Your task to perform on an android device: Open sound settings Image 0: 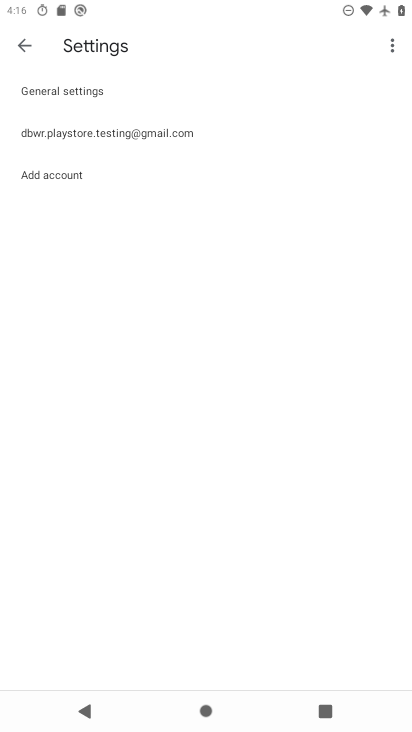
Step 0: drag from (200, 650) to (199, 444)
Your task to perform on an android device: Open sound settings Image 1: 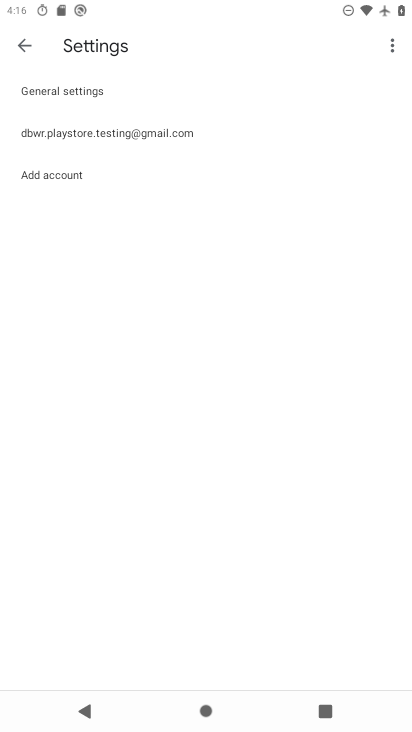
Step 1: press home button
Your task to perform on an android device: Open sound settings Image 2: 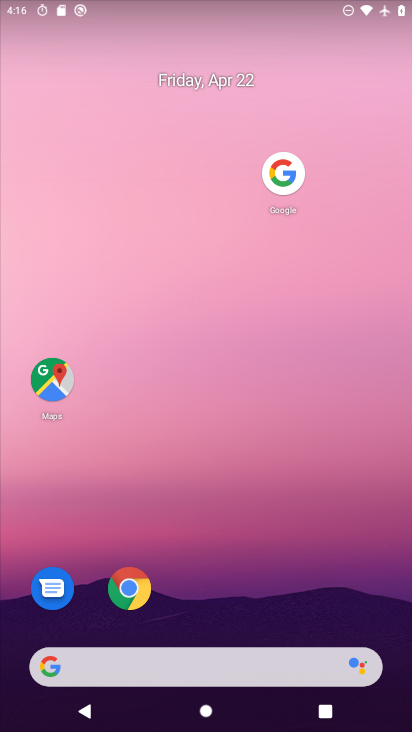
Step 2: drag from (232, 631) to (228, 45)
Your task to perform on an android device: Open sound settings Image 3: 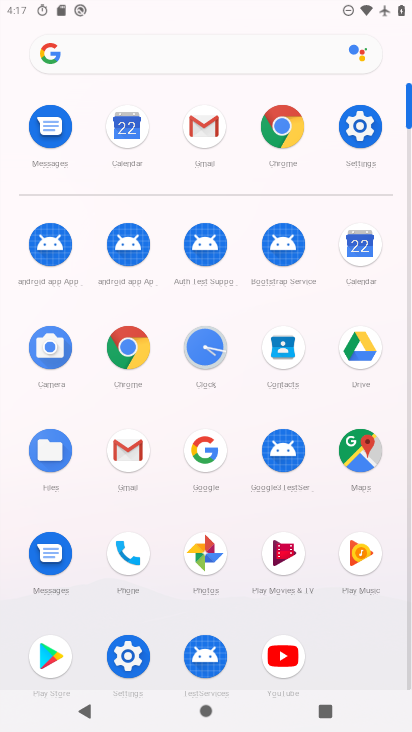
Step 3: click (122, 650)
Your task to perform on an android device: Open sound settings Image 4: 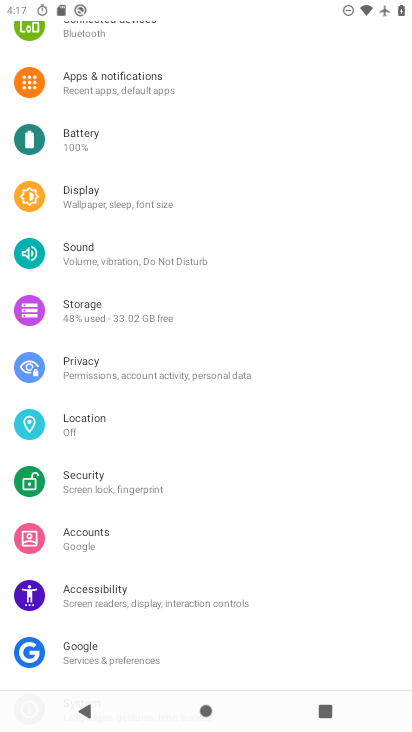
Step 4: click (81, 249)
Your task to perform on an android device: Open sound settings Image 5: 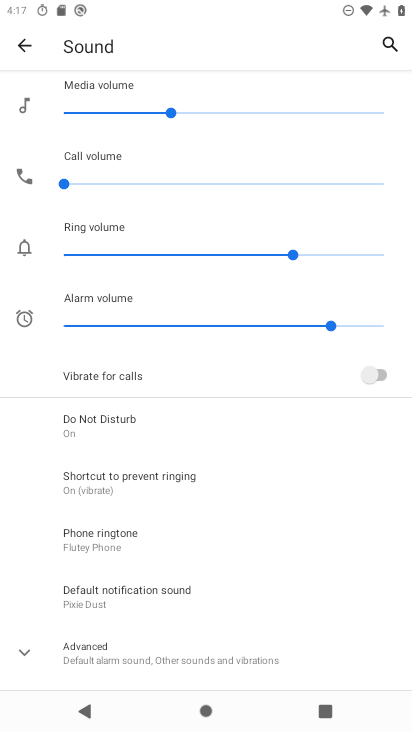
Step 5: task complete